Your task to perform on an android device: Check the news Image 0: 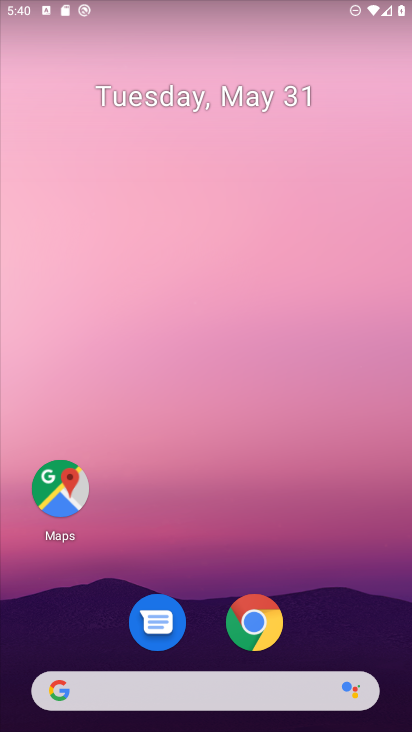
Step 0: drag from (222, 688) to (269, 143)
Your task to perform on an android device: Check the news Image 1: 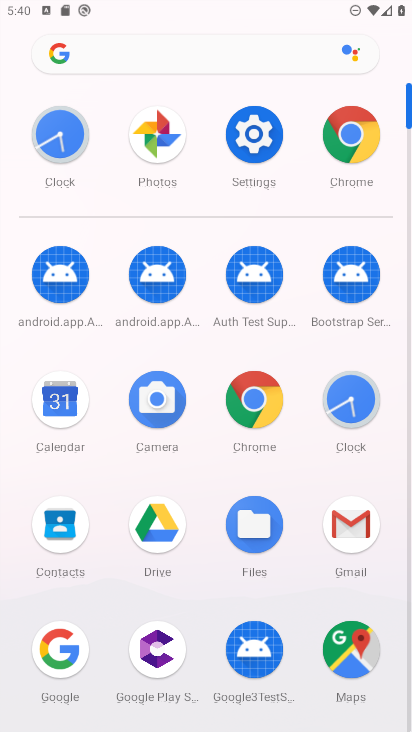
Step 1: click (255, 407)
Your task to perform on an android device: Check the news Image 2: 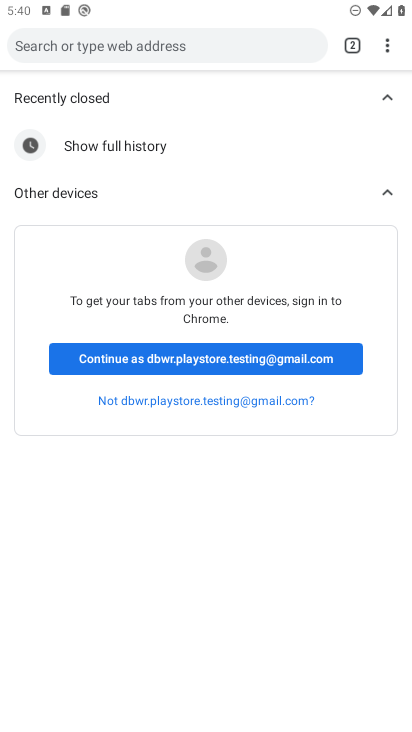
Step 2: click (164, 43)
Your task to perform on an android device: Check the news Image 3: 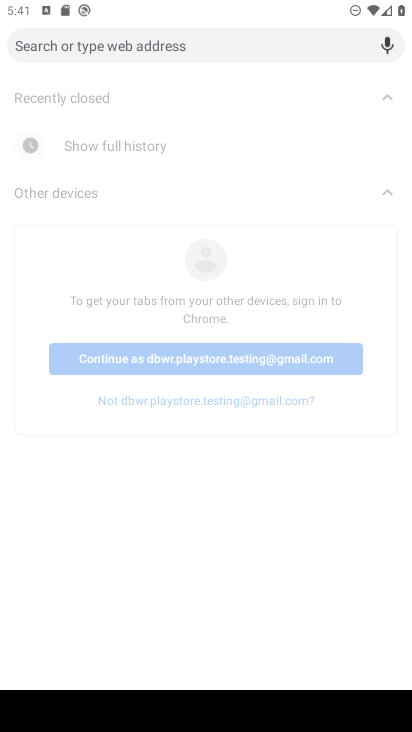
Step 3: type "check the news"
Your task to perform on an android device: Check the news Image 4: 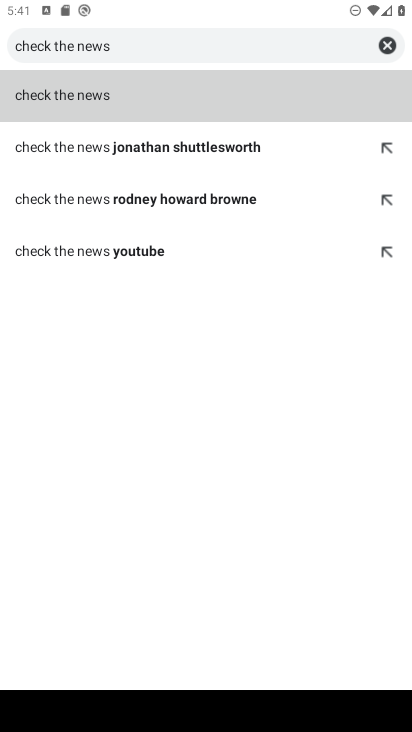
Step 4: click (157, 109)
Your task to perform on an android device: Check the news Image 5: 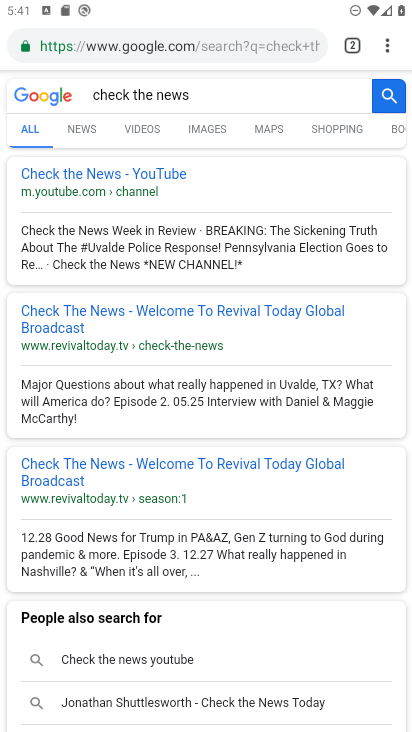
Step 5: task complete